Your task to perform on an android device: What is the news today? Image 0: 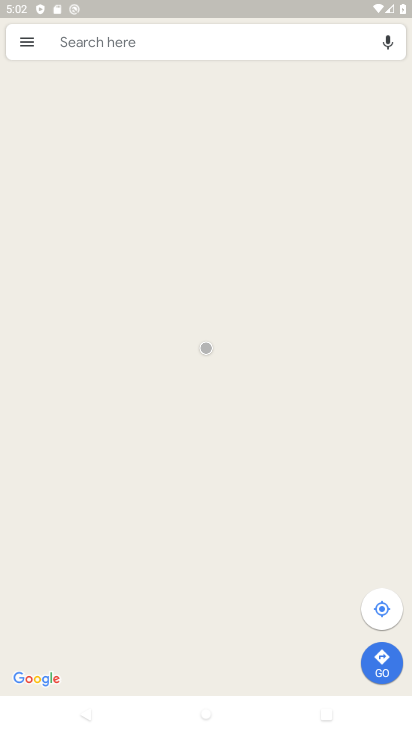
Step 0: press home button
Your task to perform on an android device: What is the news today? Image 1: 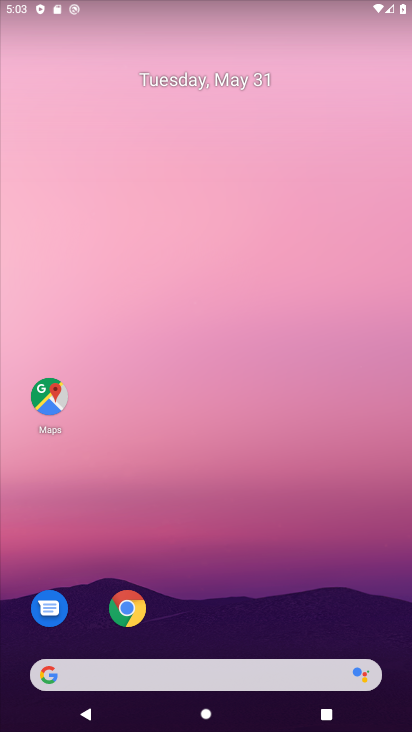
Step 1: drag from (232, 597) to (214, 243)
Your task to perform on an android device: What is the news today? Image 2: 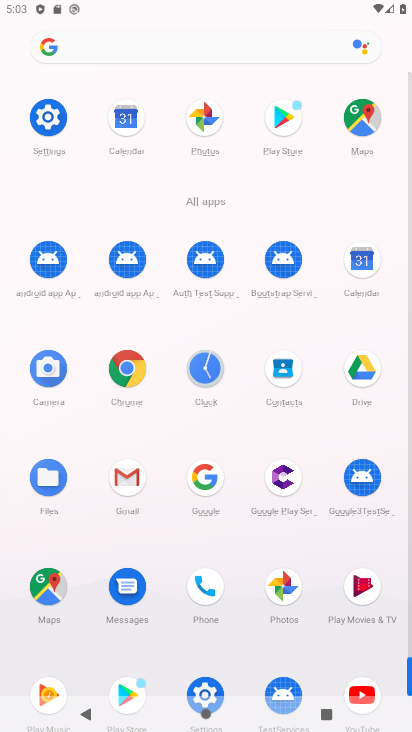
Step 2: click (203, 475)
Your task to perform on an android device: What is the news today? Image 3: 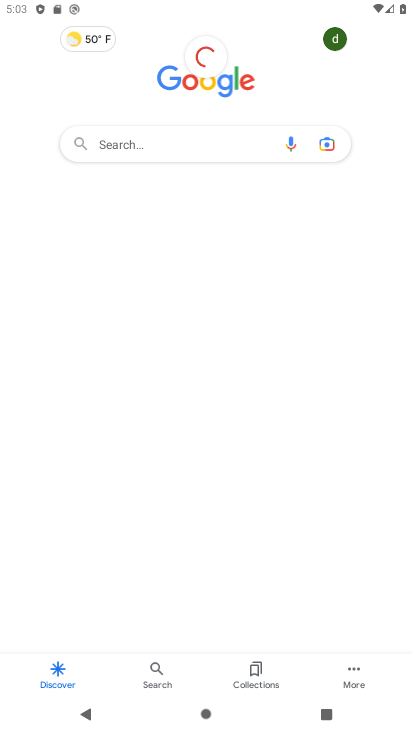
Step 3: click (202, 154)
Your task to perform on an android device: What is the news today? Image 4: 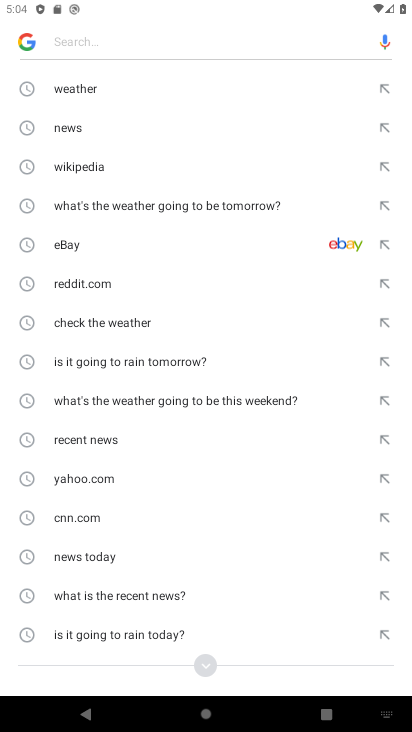
Step 4: type "news today"
Your task to perform on an android device: What is the news today? Image 5: 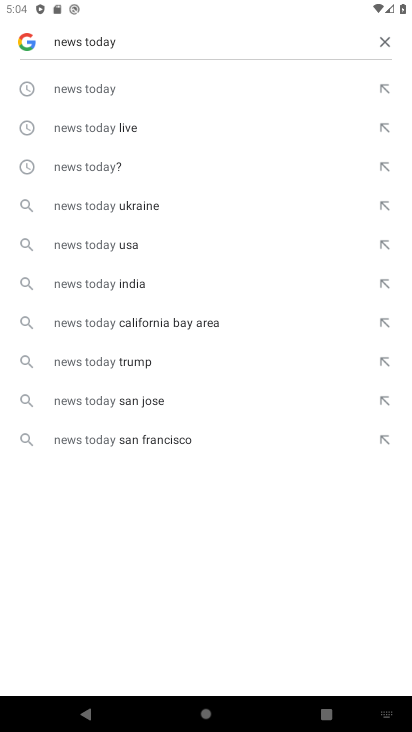
Step 5: click (114, 96)
Your task to perform on an android device: What is the news today? Image 6: 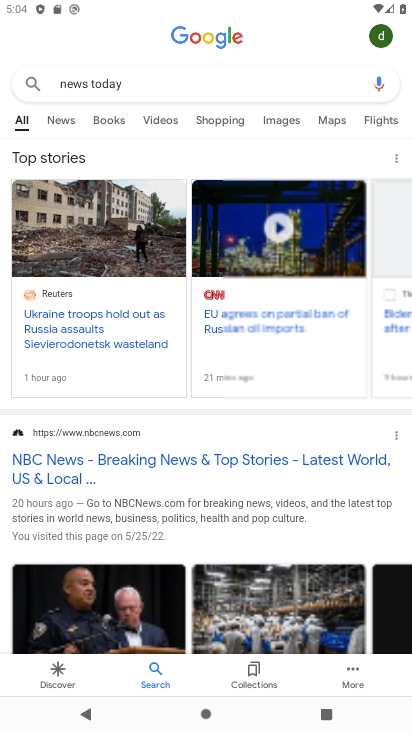
Step 6: task complete